Your task to perform on an android device: What's the weather? Image 0: 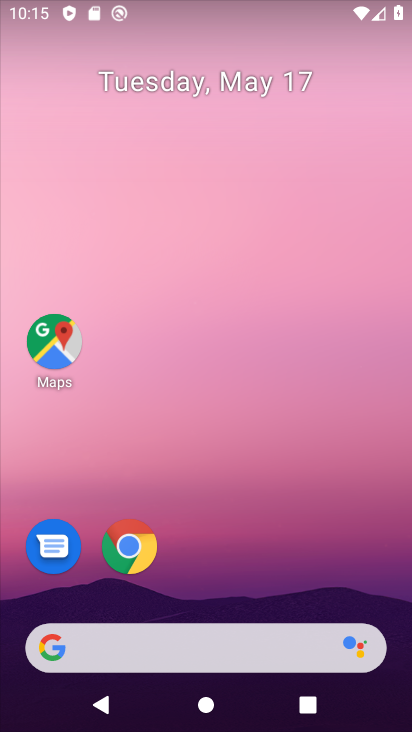
Step 0: click (200, 651)
Your task to perform on an android device: What's the weather? Image 1: 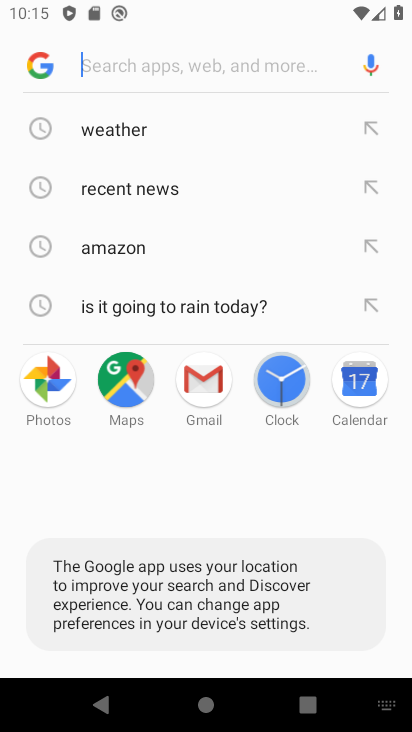
Step 1: click (127, 130)
Your task to perform on an android device: What's the weather? Image 2: 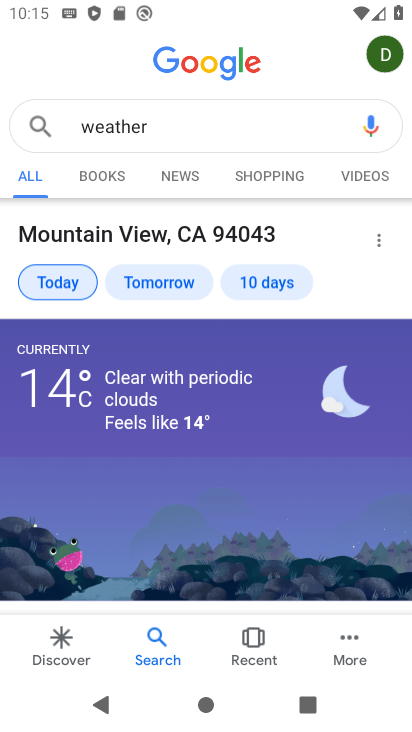
Step 2: task complete